Your task to perform on an android device: install app "Google Pay: Save, Pay, Manage" Image 0: 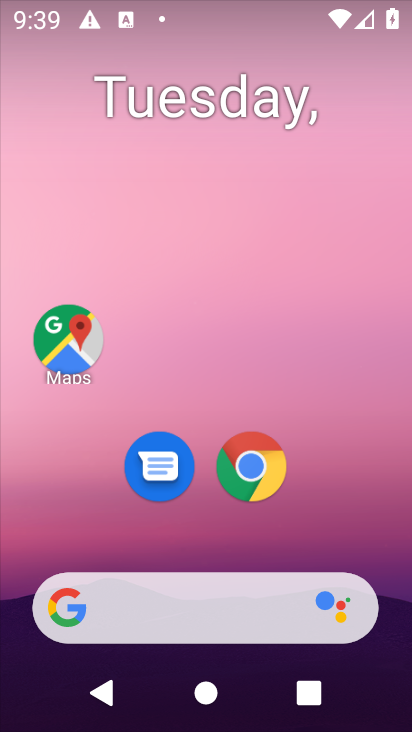
Step 0: drag from (99, 494) to (204, 109)
Your task to perform on an android device: install app "Google Pay: Save, Pay, Manage" Image 1: 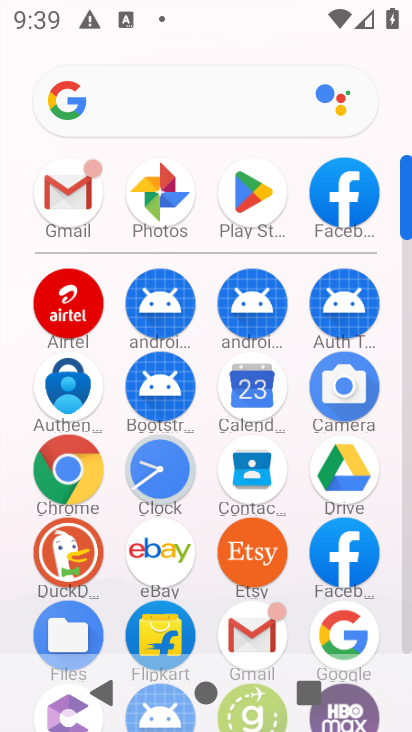
Step 1: click (230, 183)
Your task to perform on an android device: install app "Google Pay: Save, Pay, Manage" Image 2: 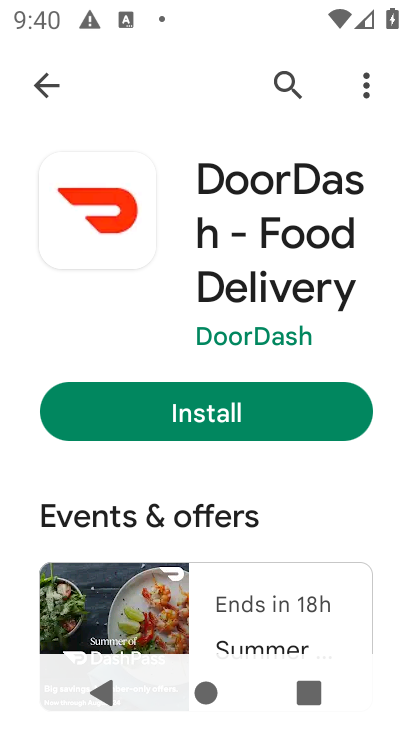
Step 2: click (279, 57)
Your task to perform on an android device: install app "Google Pay: Save, Pay, Manage" Image 3: 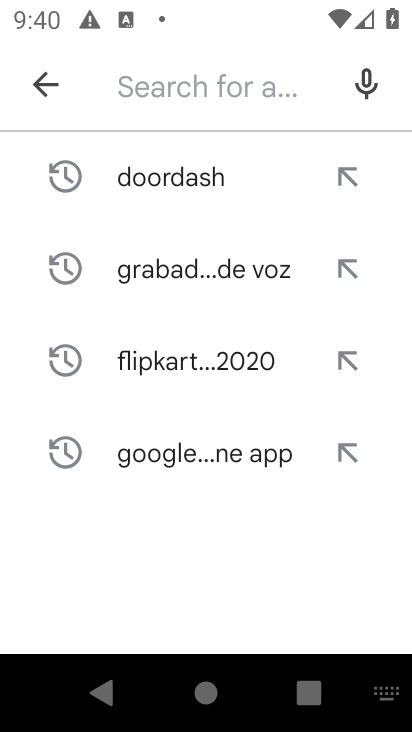
Step 3: click (143, 95)
Your task to perform on an android device: install app "Google Pay: Save, Pay, Manage" Image 4: 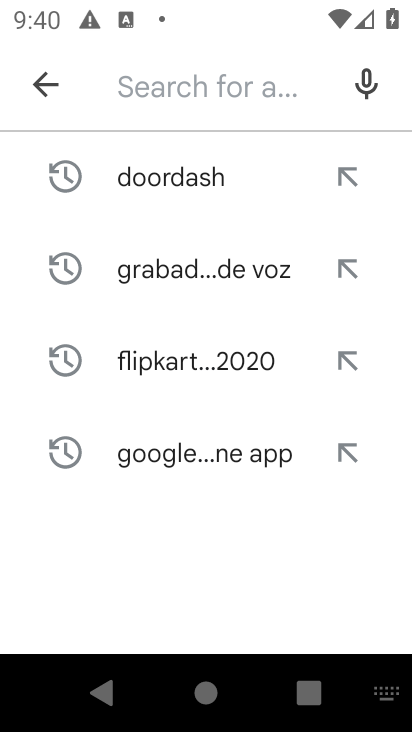
Step 4: type "Google Pay"
Your task to perform on an android device: install app "Google Pay: Save, Pay, Manage" Image 5: 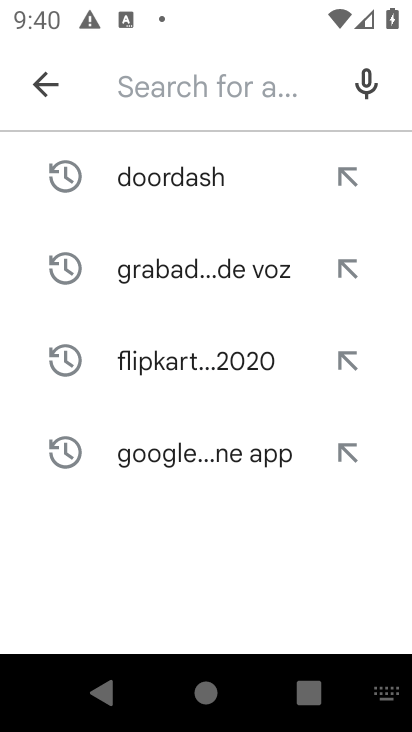
Step 5: click (240, 545)
Your task to perform on an android device: install app "Google Pay: Save, Pay, Manage" Image 6: 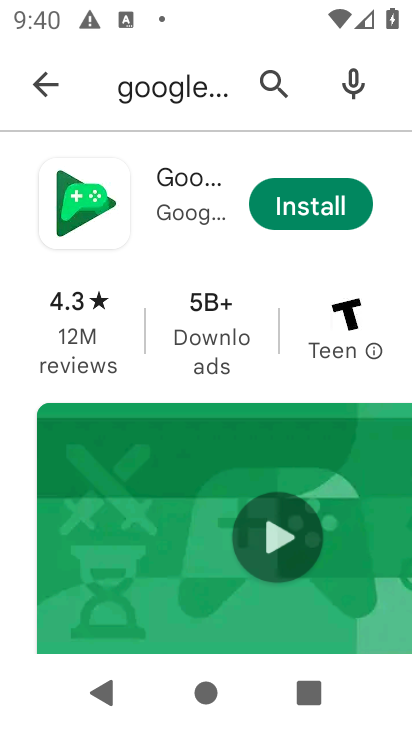
Step 6: click (259, 83)
Your task to perform on an android device: install app "Google Pay: Save, Pay, Manage" Image 7: 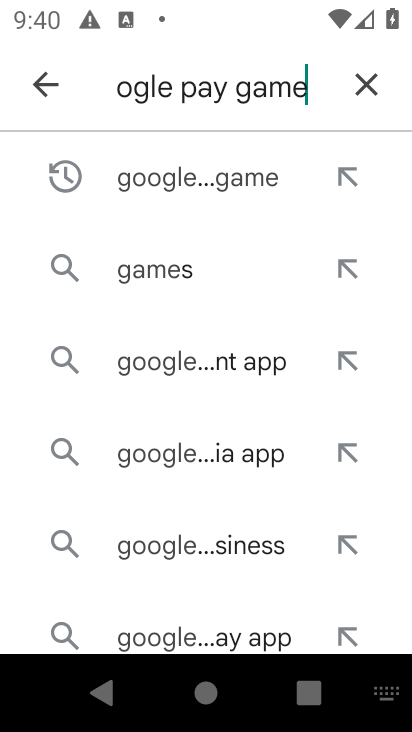
Step 7: click (363, 75)
Your task to perform on an android device: install app "Google Pay: Save, Pay, Manage" Image 8: 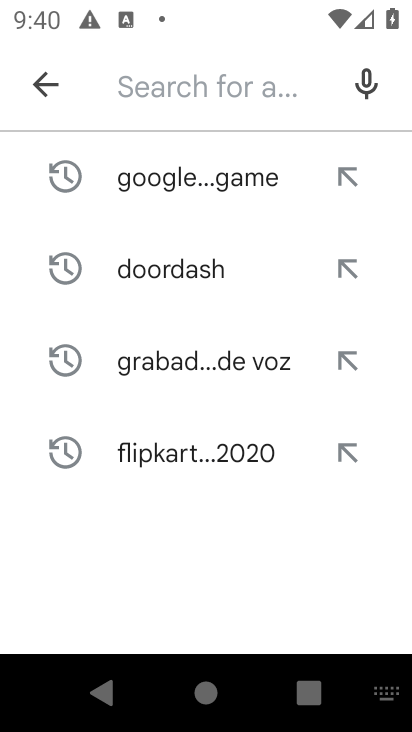
Step 8: type "Google Pay"
Your task to perform on an android device: install app "Google Pay: Save, Pay, Manage" Image 9: 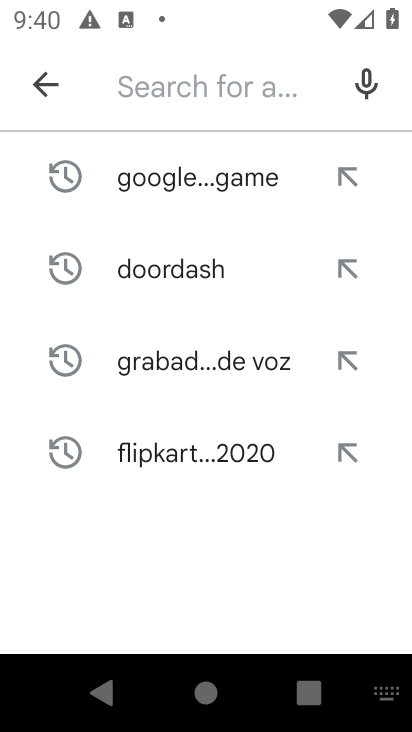
Step 9: click (122, 86)
Your task to perform on an android device: install app "Google Pay: Save, Pay, Manage" Image 10: 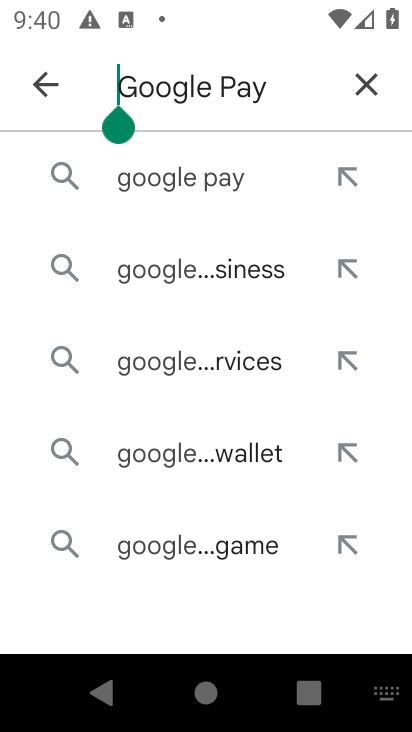
Step 10: click (191, 183)
Your task to perform on an android device: install app "Google Pay: Save, Pay, Manage" Image 11: 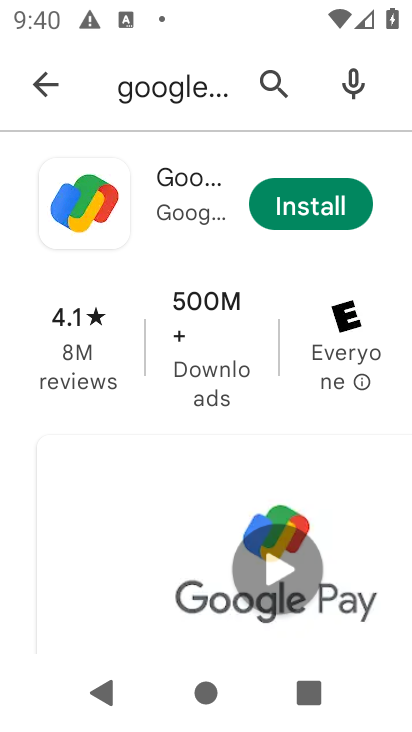
Step 11: click (304, 200)
Your task to perform on an android device: install app "Google Pay: Save, Pay, Manage" Image 12: 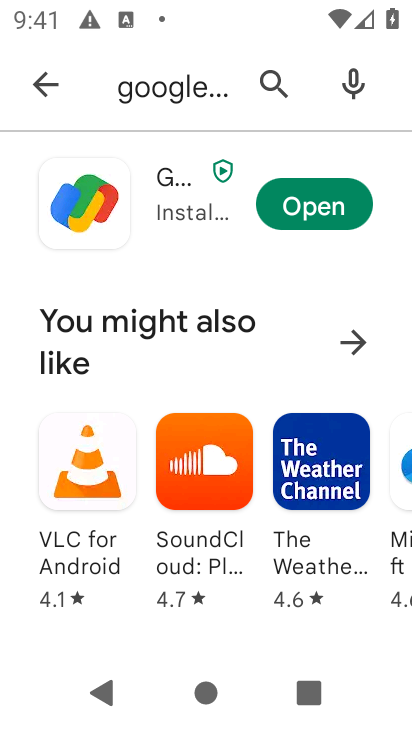
Step 12: task complete